Your task to perform on an android device: Go to settings Image 0: 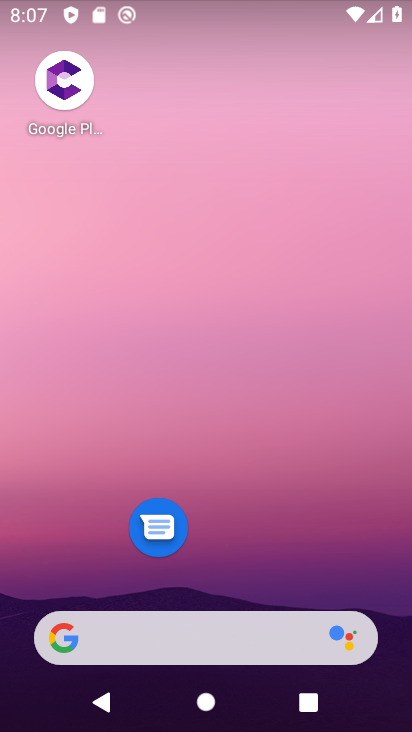
Step 0: drag from (219, 586) to (243, 209)
Your task to perform on an android device: Go to settings Image 1: 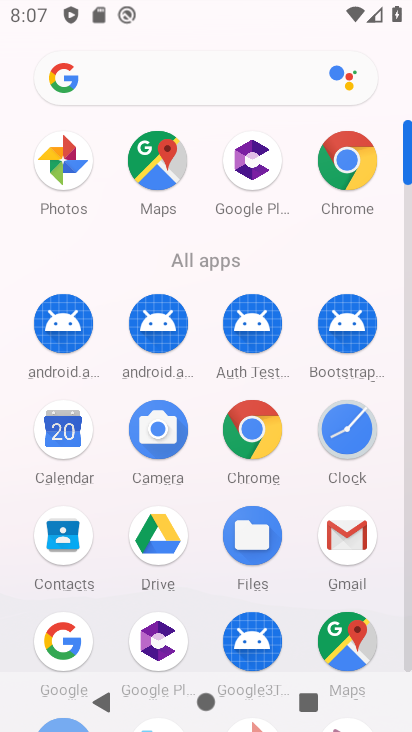
Step 1: drag from (295, 583) to (305, 169)
Your task to perform on an android device: Go to settings Image 2: 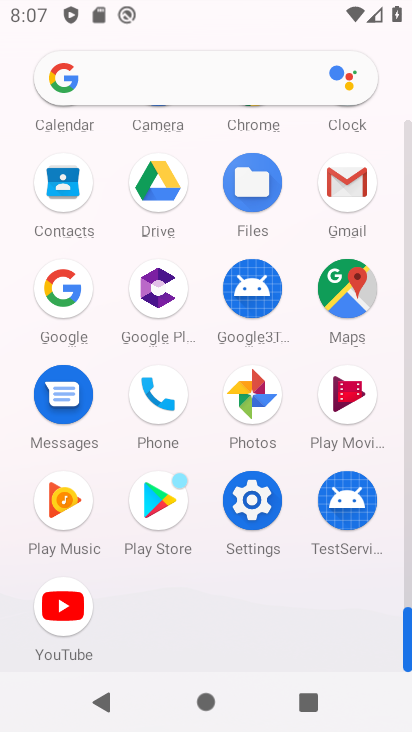
Step 2: click (262, 493)
Your task to perform on an android device: Go to settings Image 3: 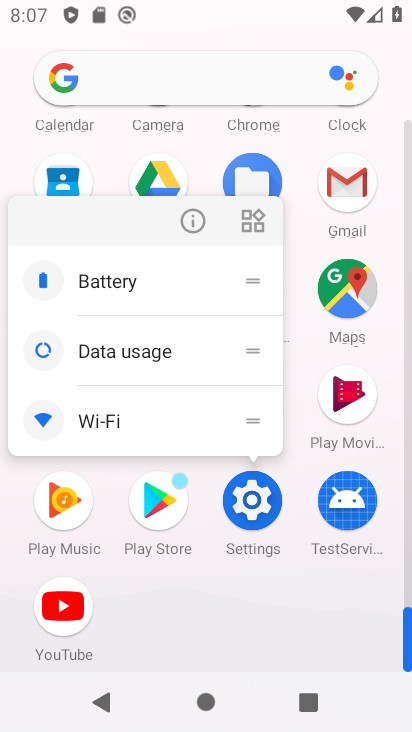
Step 3: click (240, 502)
Your task to perform on an android device: Go to settings Image 4: 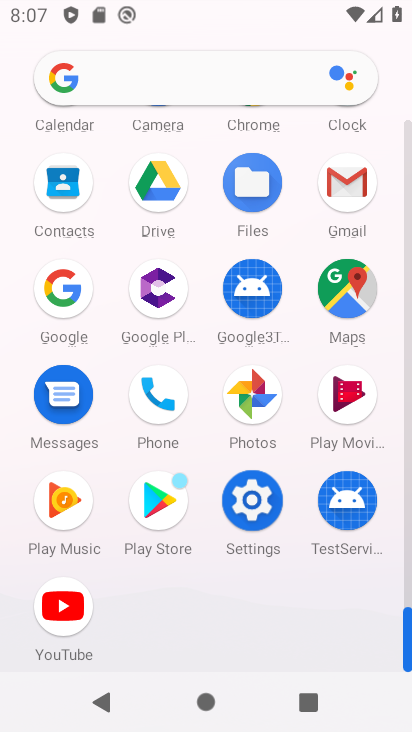
Step 4: click (240, 502)
Your task to perform on an android device: Go to settings Image 5: 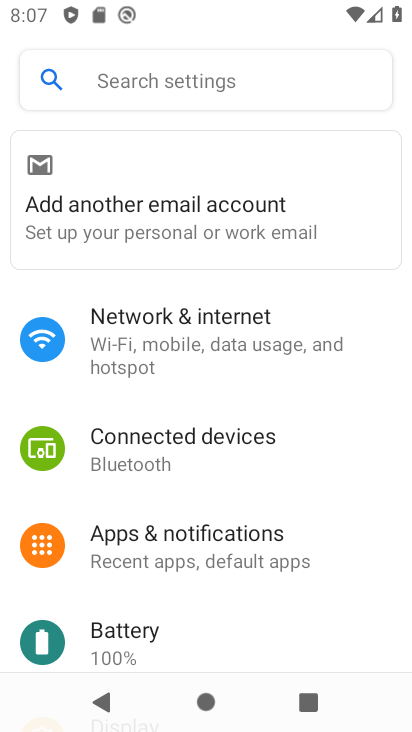
Step 5: task complete